Your task to perform on an android device: delete browsing data in the chrome app Image 0: 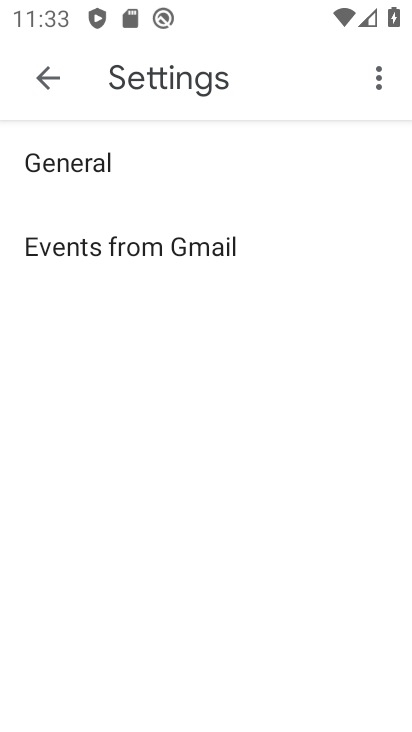
Step 0: press home button
Your task to perform on an android device: delete browsing data in the chrome app Image 1: 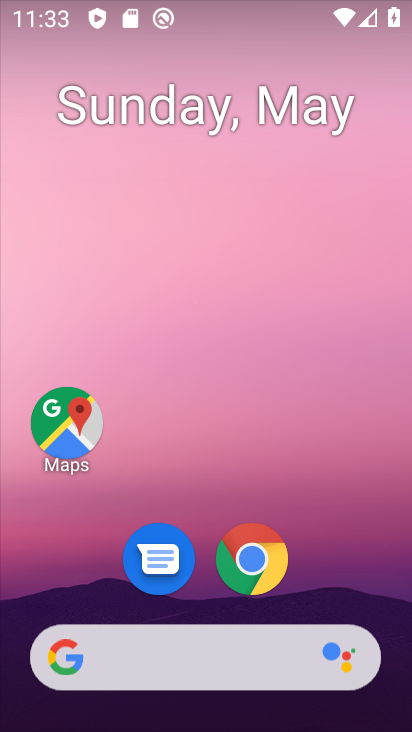
Step 1: drag from (208, 697) to (398, 229)
Your task to perform on an android device: delete browsing data in the chrome app Image 2: 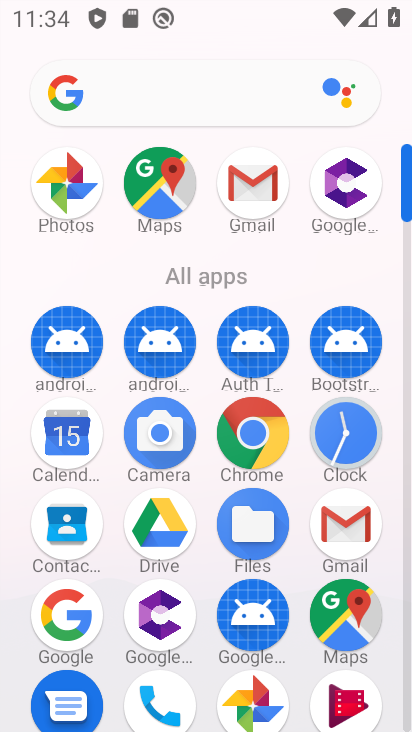
Step 2: click (270, 426)
Your task to perform on an android device: delete browsing data in the chrome app Image 3: 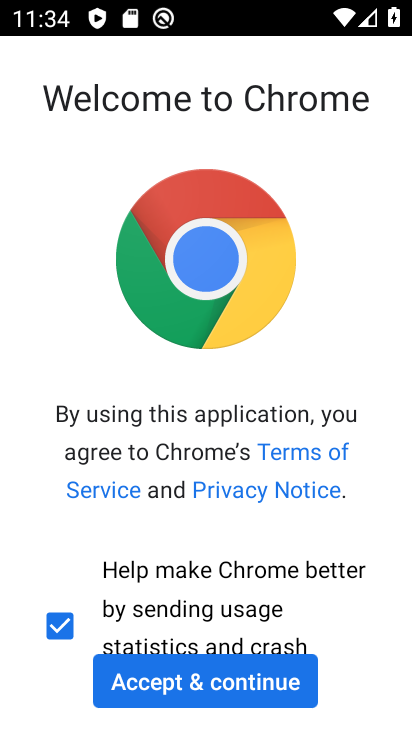
Step 3: click (251, 676)
Your task to perform on an android device: delete browsing data in the chrome app Image 4: 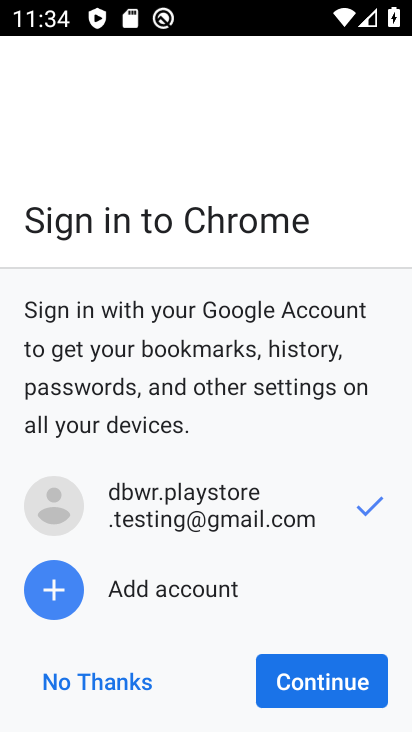
Step 4: click (337, 683)
Your task to perform on an android device: delete browsing data in the chrome app Image 5: 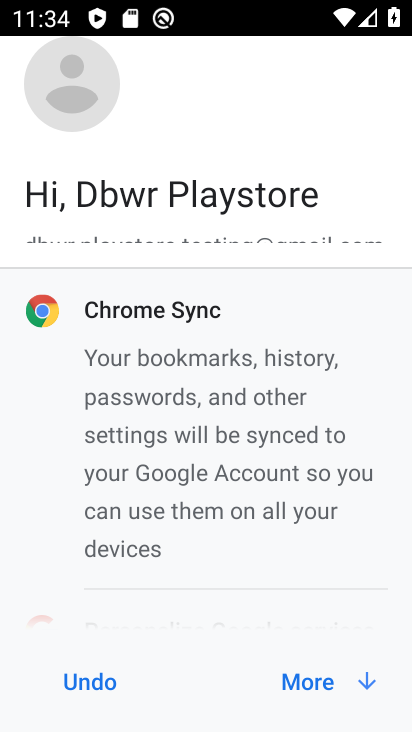
Step 5: click (277, 683)
Your task to perform on an android device: delete browsing data in the chrome app Image 6: 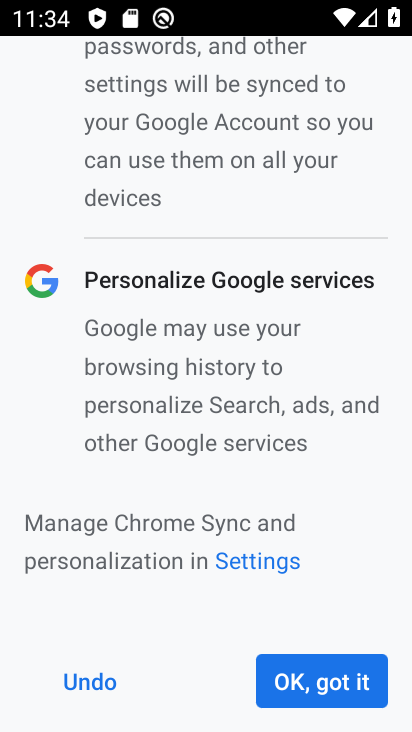
Step 6: click (316, 689)
Your task to perform on an android device: delete browsing data in the chrome app Image 7: 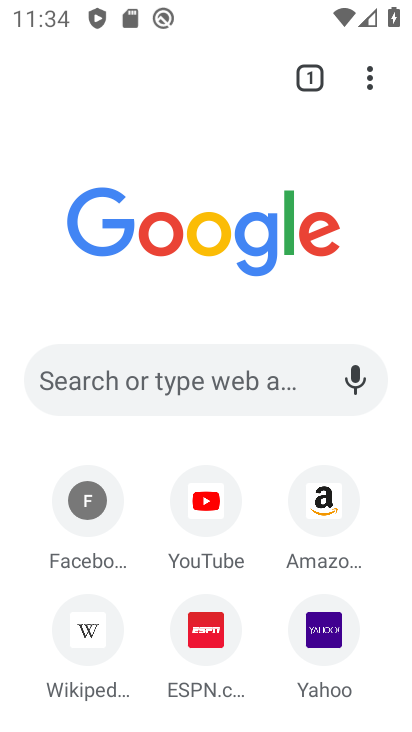
Step 7: click (377, 77)
Your task to perform on an android device: delete browsing data in the chrome app Image 8: 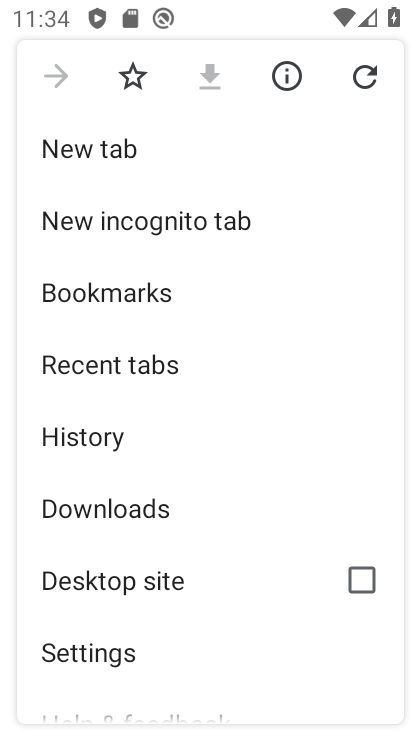
Step 8: click (117, 430)
Your task to perform on an android device: delete browsing data in the chrome app Image 9: 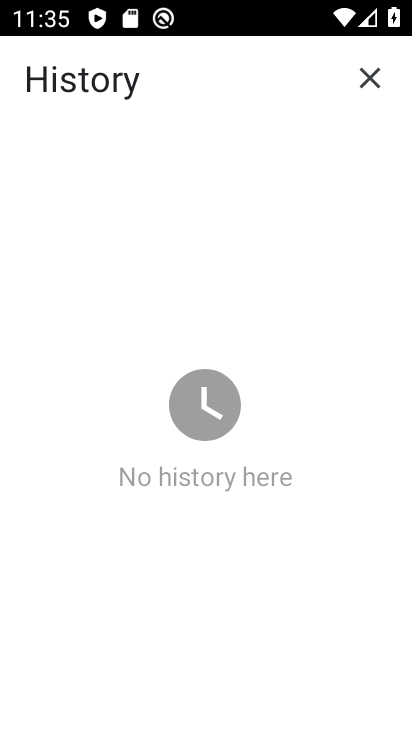
Step 9: task complete